Your task to perform on an android device: Go to Amazon Image 0: 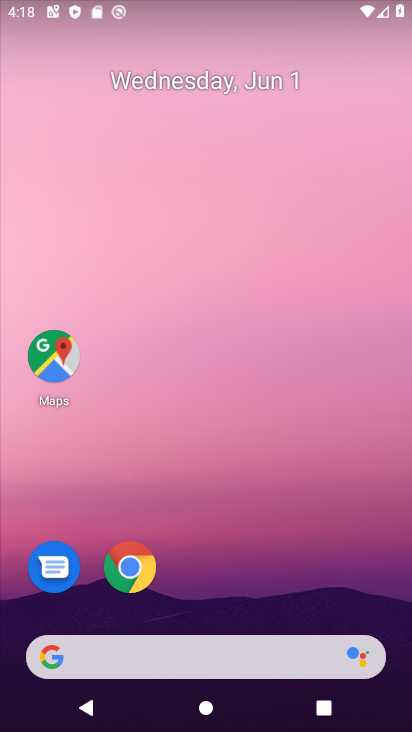
Step 0: click (128, 584)
Your task to perform on an android device: Go to Amazon Image 1: 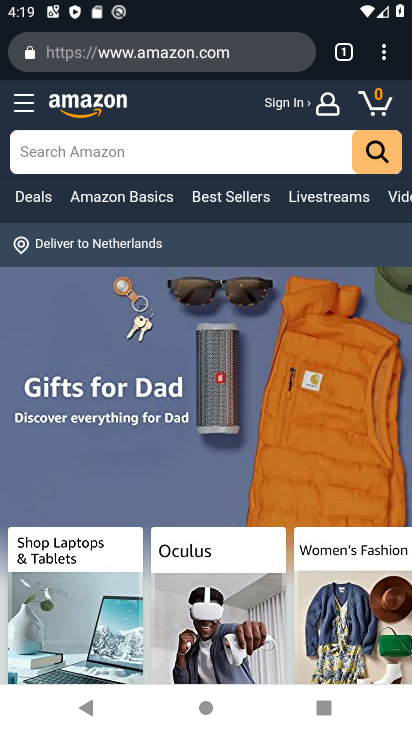
Step 1: task complete